Your task to perform on an android device: Open wifi settings Image 0: 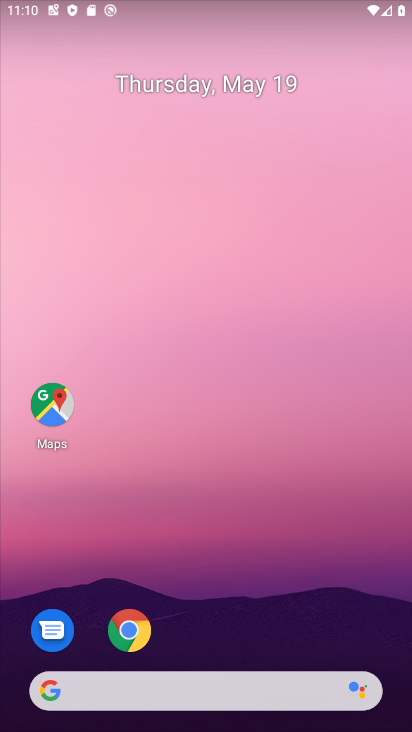
Step 0: drag from (221, 626) to (263, 3)
Your task to perform on an android device: Open wifi settings Image 1: 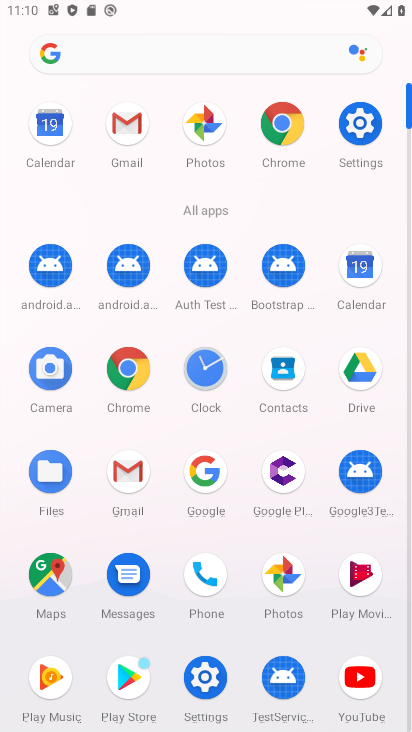
Step 1: click (361, 125)
Your task to perform on an android device: Open wifi settings Image 2: 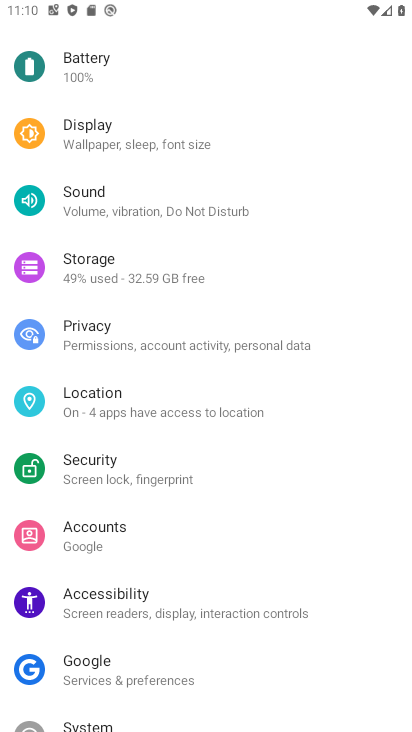
Step 2: drag from (169, 165) to (129, 309)
Your task to perform on an android device: Open wifi settings Image 3: 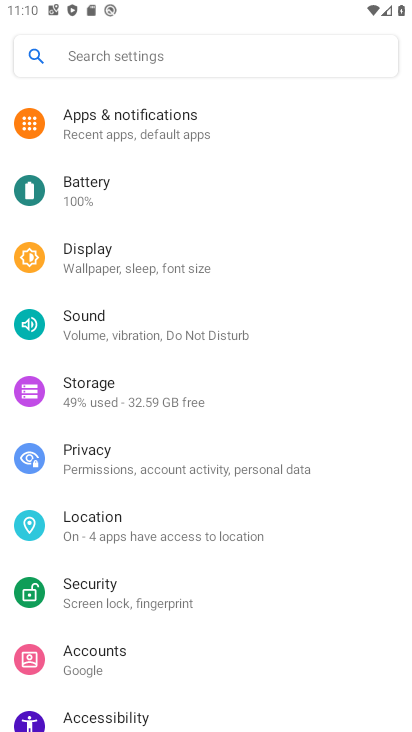
Step 3: drag from (181, 175) to (151, 339)
Your task to perform on an android device: Open wifi settings Image 4: 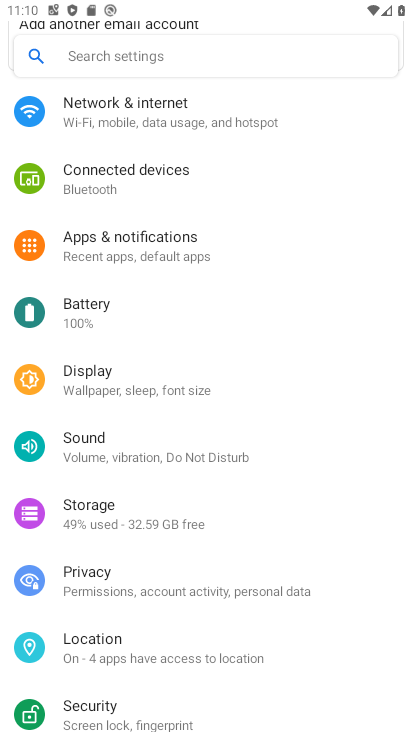
Step 4: click (150, 102)
Your task to perform on an android device: Open wifi settings Image 5: 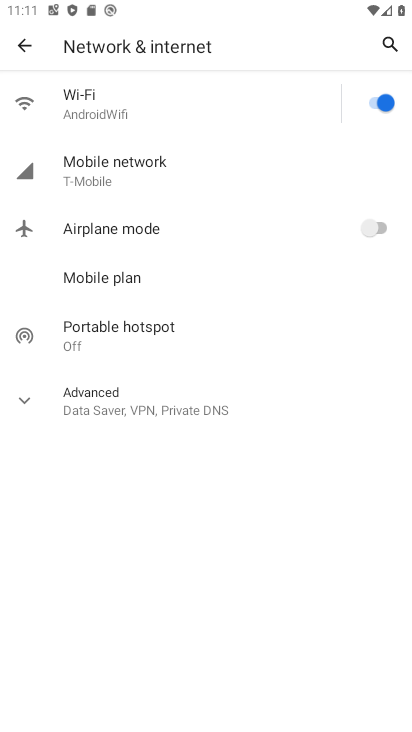
Step 5: click (83, 115)
Your task to perform on an android device: Open wifi settings Image 6: 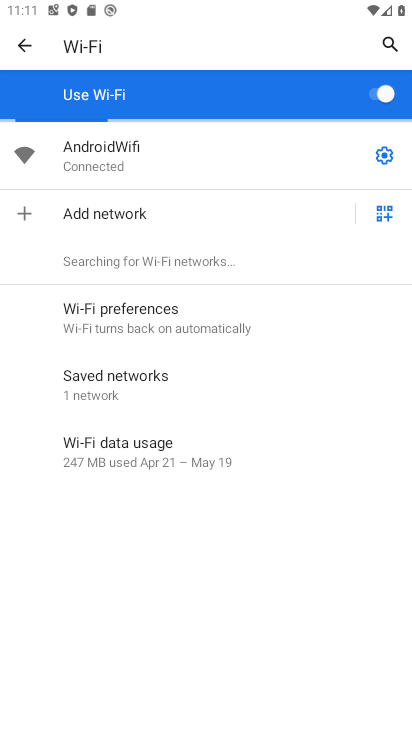
Step 6: click (382, 151)
Your task to perform on an android device: Open wifi settings Image 7: 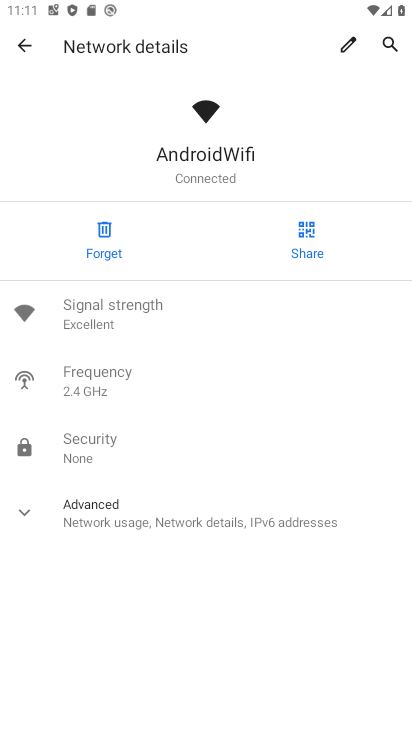
Step 7: task complete